Your task to perform on an android device: turn on the 24-hour format for clock Image 0: 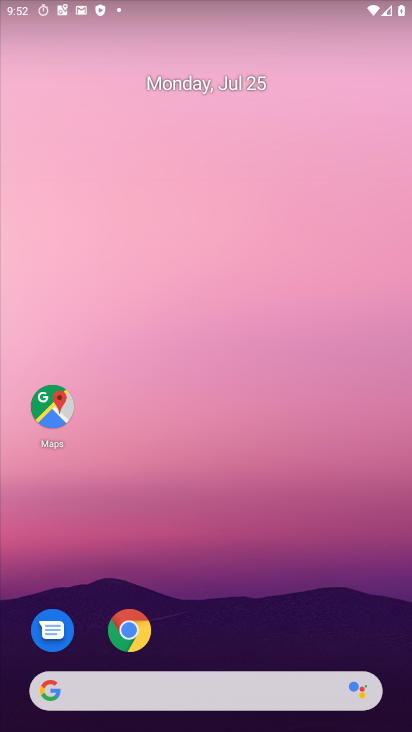
Step 0: press home button
Your task to perform on an android device: turn on the 24-hour format for clock Image 1: 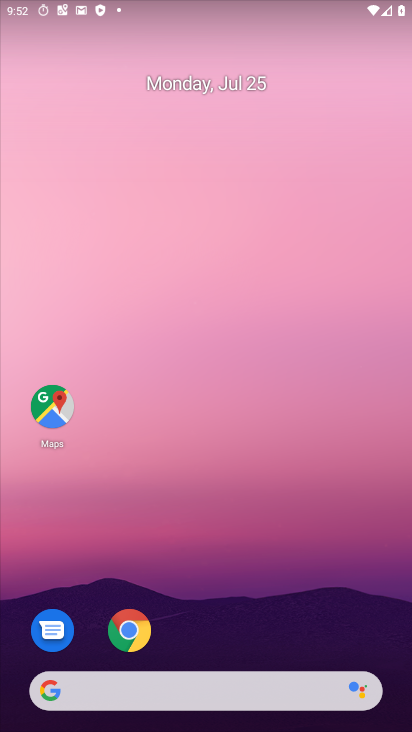
Step 1: drag from (220, 646) to (243, 147)
Your task to perform on an android device: turn on the 24-hour format for clock Image 2: 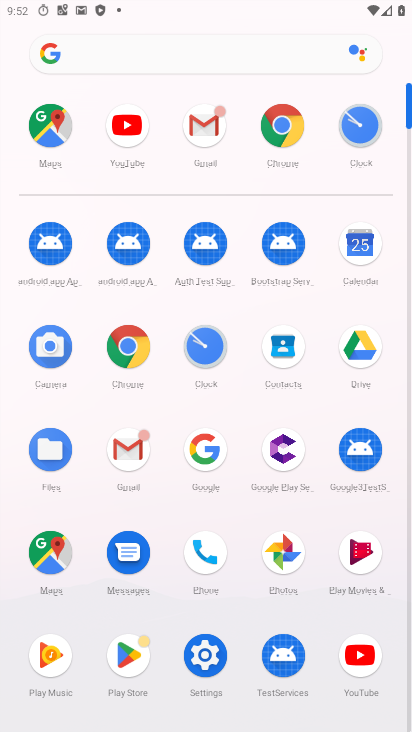
Step 2: click (194, 652)
Your task to perform on an android device: turn on the 24-hour format for clock Image 3: 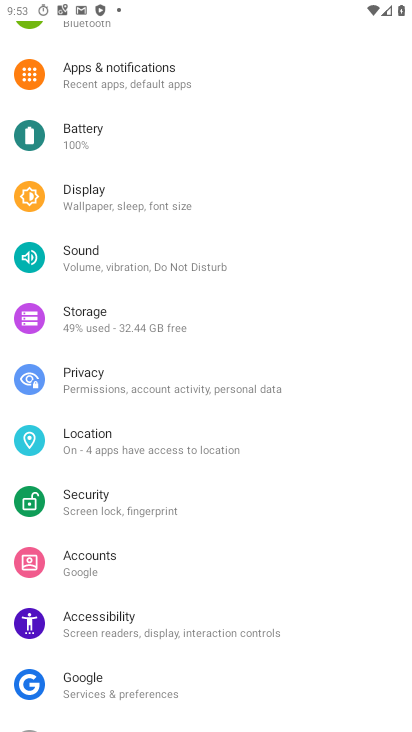
Step 3: drag from (317, 692) to (305, 196)
Your task to perform on an android device: turn on the 24-hour format for clock Image 4: 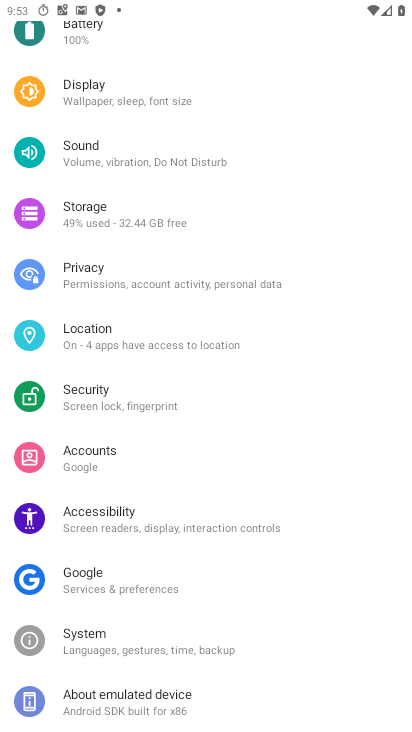
Step 4: click (99, 655)
Your task to perform on an android device: turn on the 24-hour format for clock Image 5: 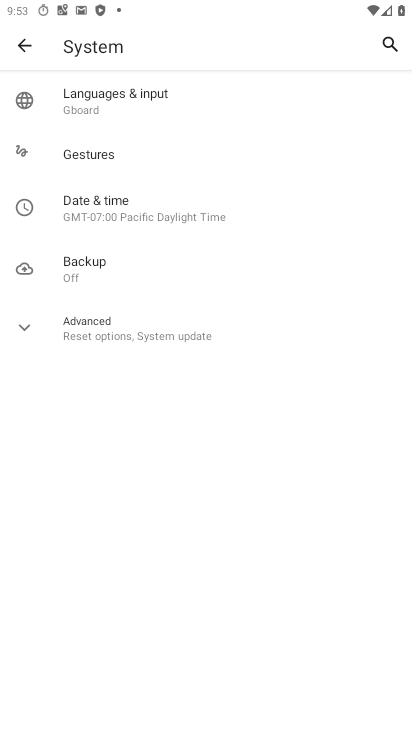
Step 5: click (128, 204)
Your task to perform on an android device: turn on the 24-hour format for clock Image 6: 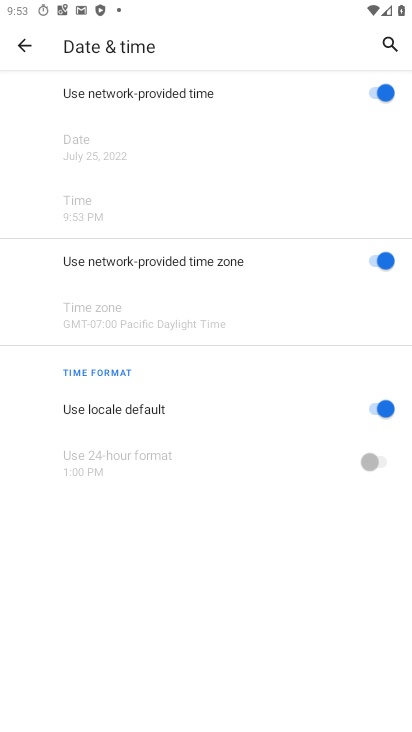
Step 6: click (384, 405)
Your task to perform on an android device: turn on the 24-hour format for clock Image 7: 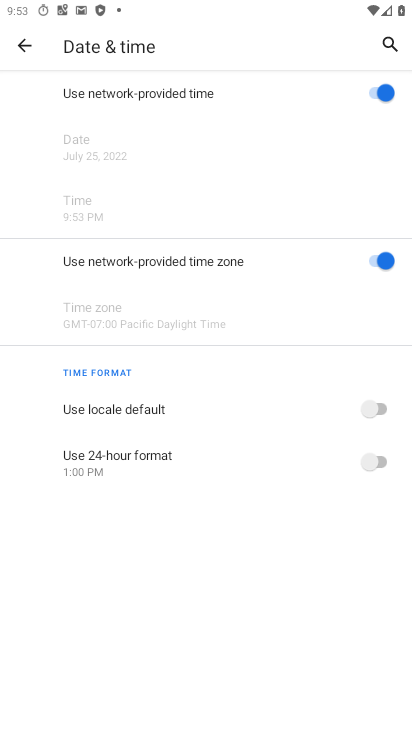
Step 7: click (367, 462)
Your task to perform on an android device: turn on the 24-hour format for clock Image 8: 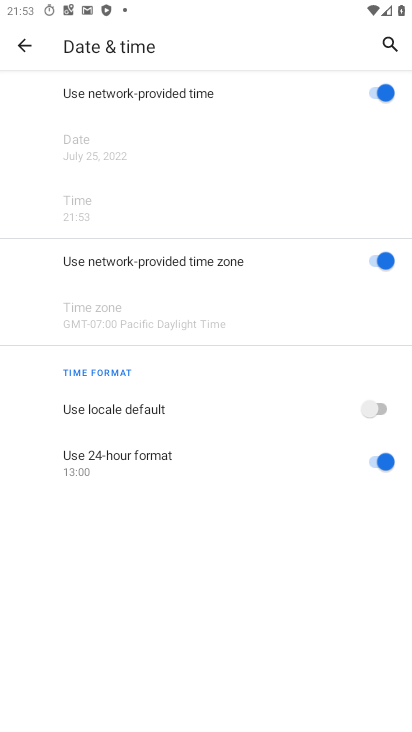
Step 8: task complete